Your task to perform on an android device: Check the weather Image 0: 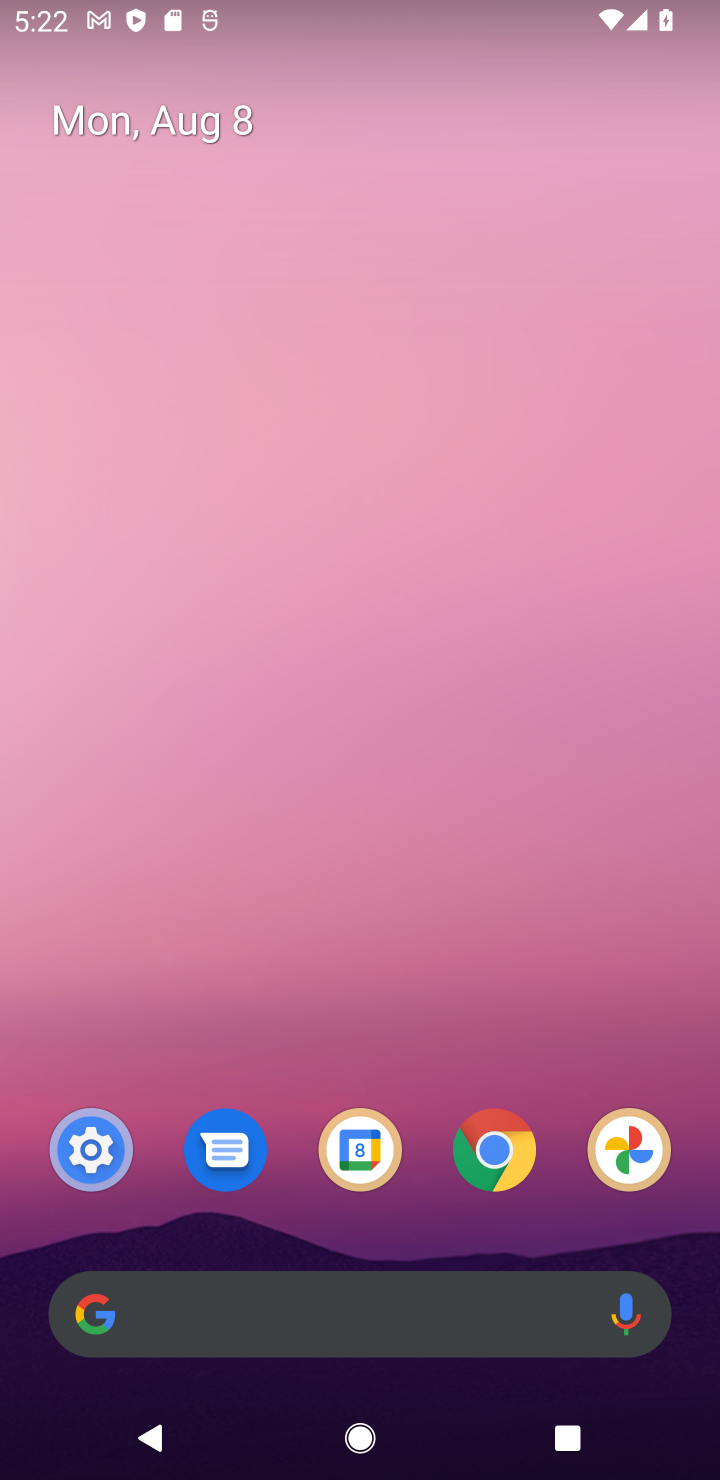
Step 0: click (339, 1331)
Your task to perform on an android device: Check the weather Image 1: 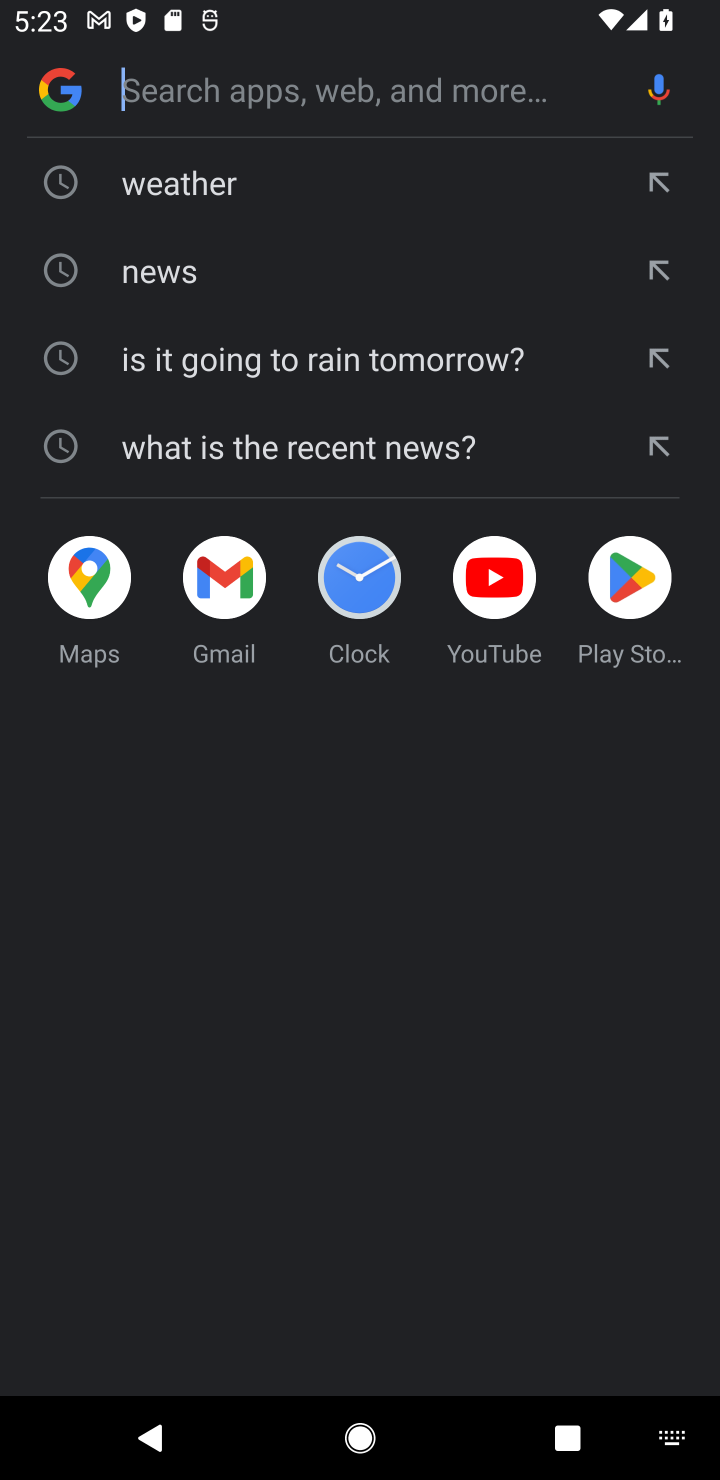
Step 1: click (300, 204)
Your task to perform on an android device: Check the weather Image 2: 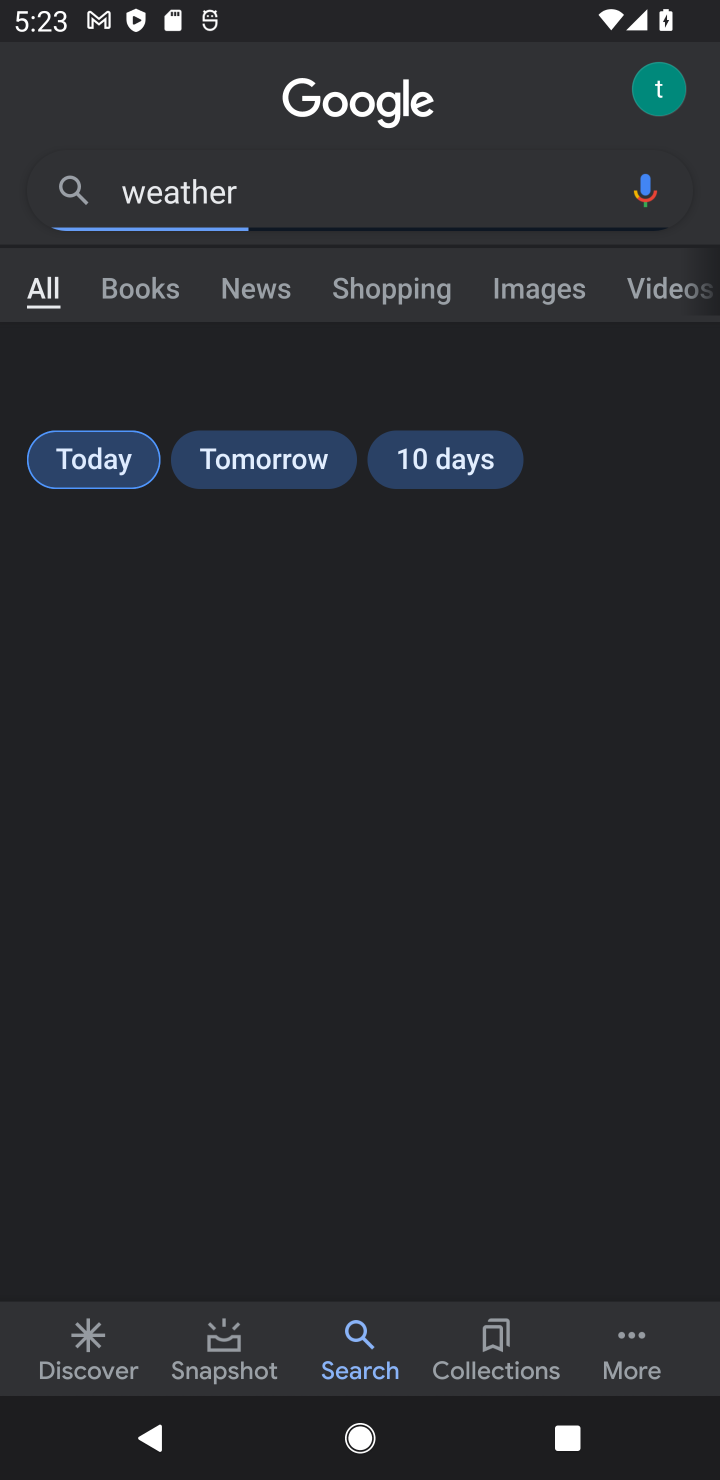
Step 2: task complete